Your task to perform on an android device: Add "acer nitro" to the cart on bestbuy, then select checkout. Image 0: 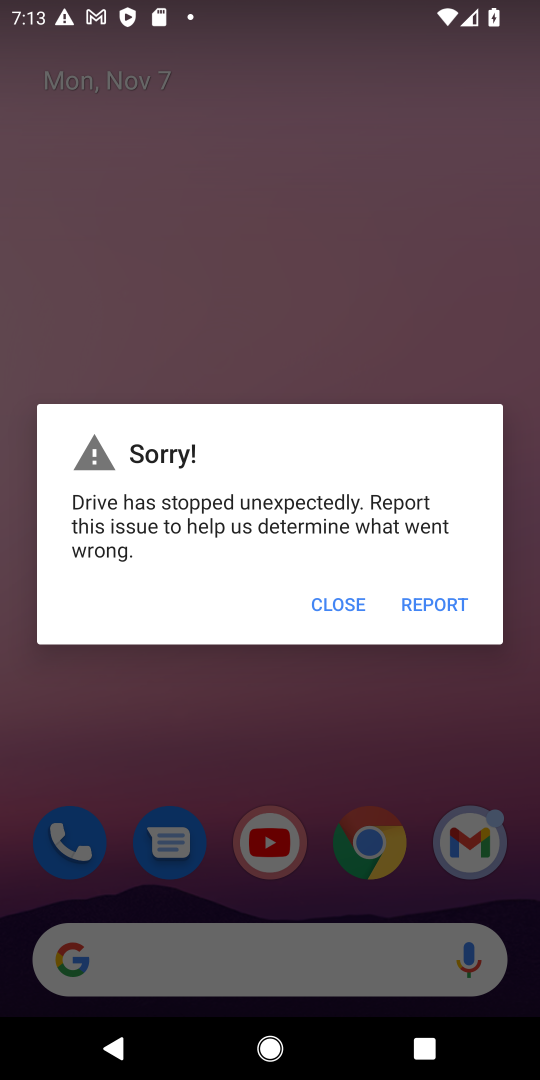
Step 0: click (329, 608)
Your task to perform on an android device: Add "acer nitro" to the cart on bestbuy, then select checkout. Image 1: 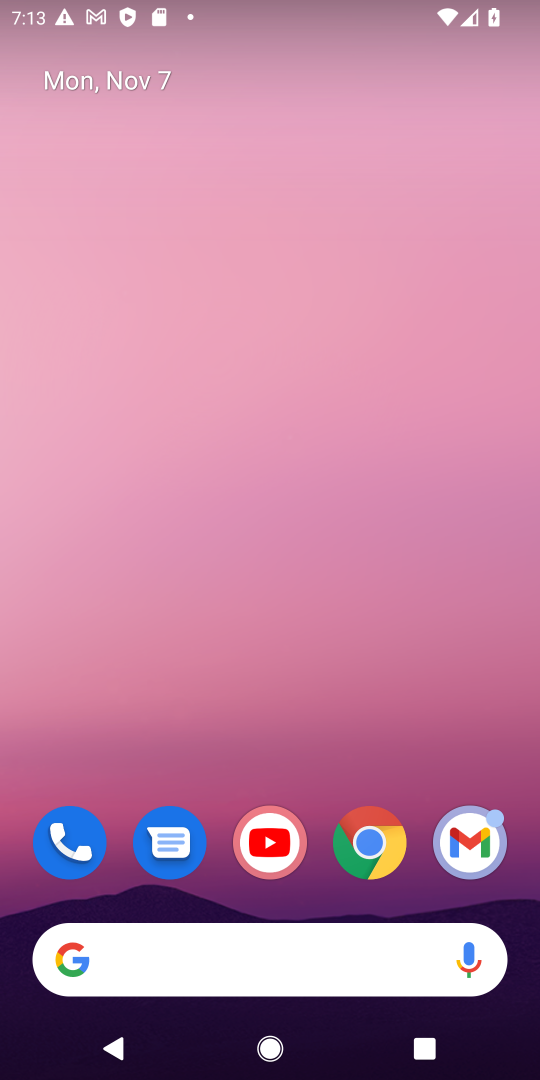
Step 1: drag from (309, 916) to (266, 65)
Your task to perform on an android device: Add "acer nitro" to the cart on bestbuy, then select checkout. Image 2: 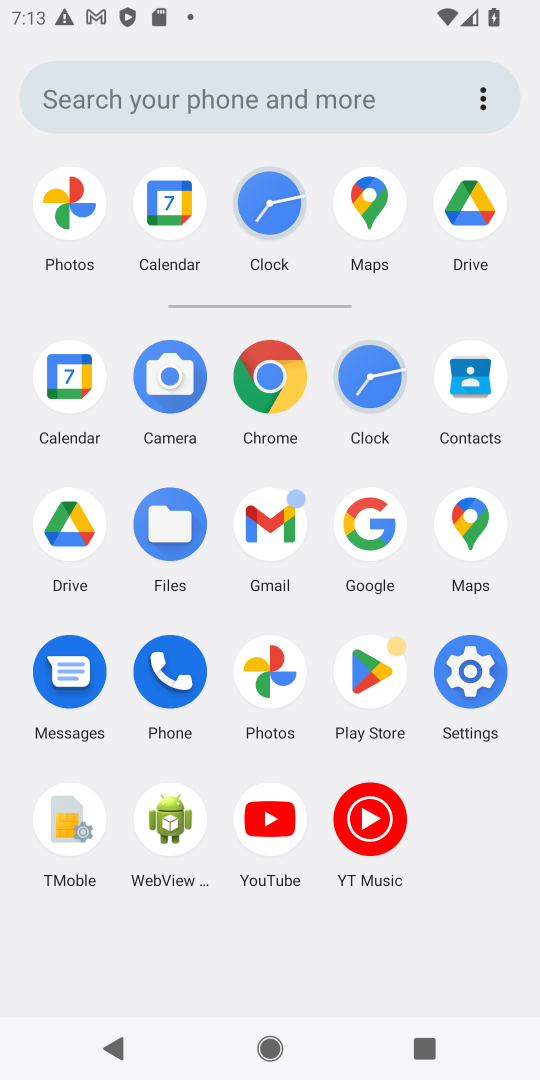
Step 2: click (274, 382)
Your task to perform on an android device: Add "acer nitro" to the cart on bestbuy, then select checkout. Image 3: 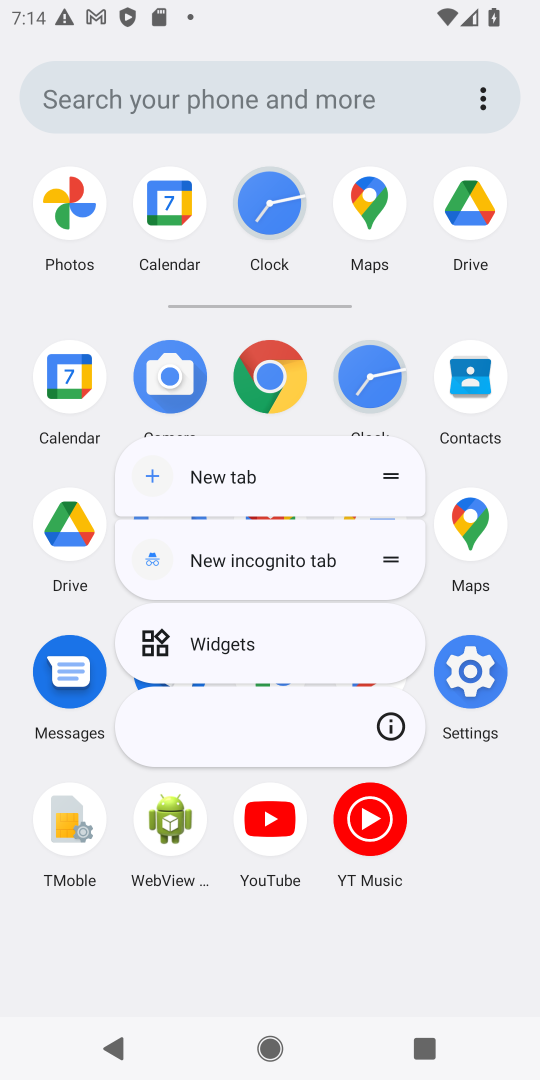
Step 3: click (276, 377)
Your task to perform on an android device: Add "acer nitro" to the cart on bestbuy, then select checkout. Image 4: 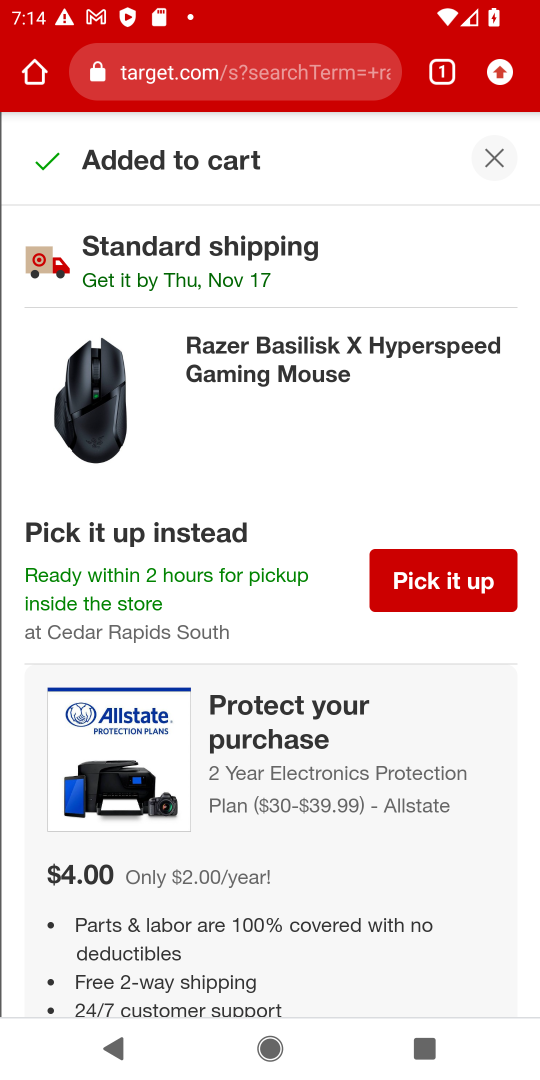
Step 4: click (239, 82)
Your task to perform on an android device: Add "acer nitro" to the cart on bestbuy, then select checkout. Image 5: 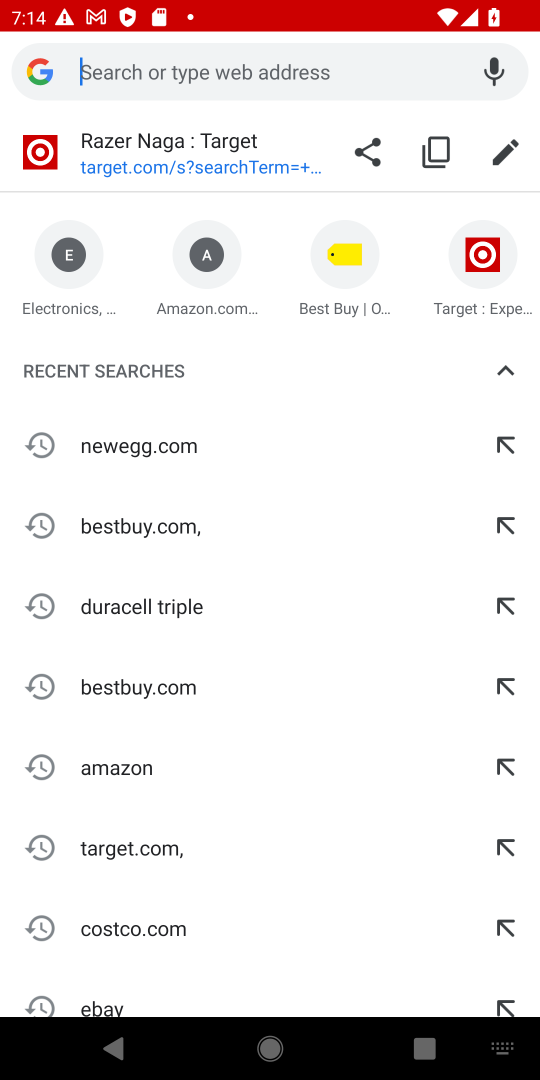
Step 5: type "bestbuy"
Your task to perform on an android device: Add "acer nitro" to the cart on bestbuy, then select checkout. Image 6: 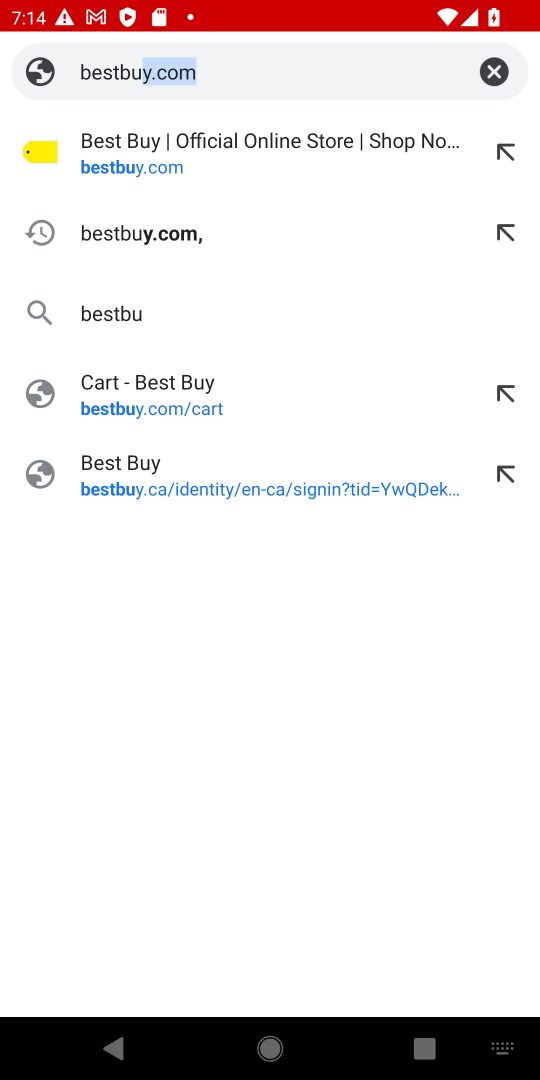
Step 6: press enter
Your task to perform on an android device: Add "acer nitro" to the cart on bestbuy, then select checkout. Image 7: 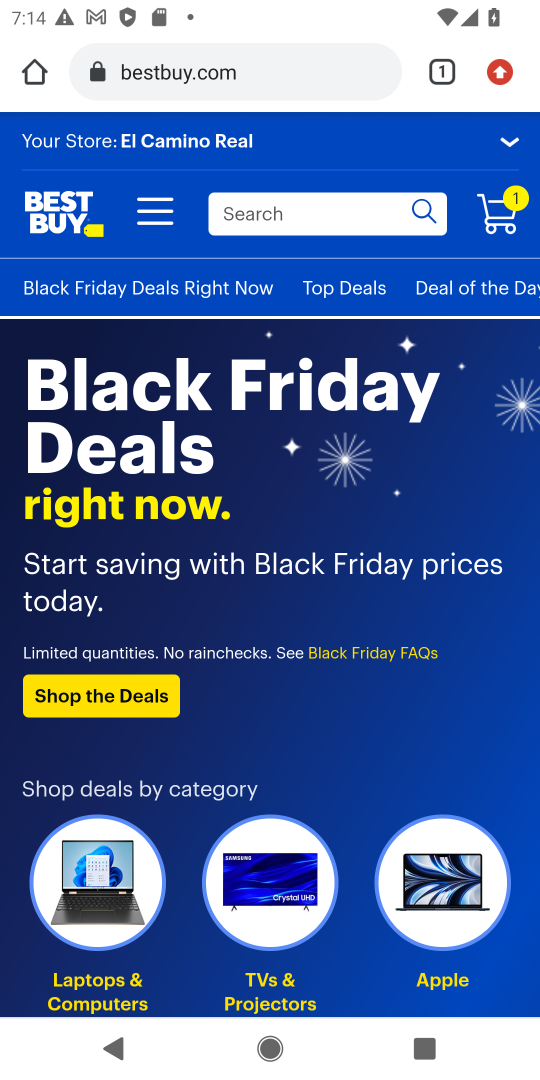
Step 7: click (314, 206)
Your task to perform on an android device: Add "acer nitro" to the cart on bestbuy, then select checkout. Image 8: 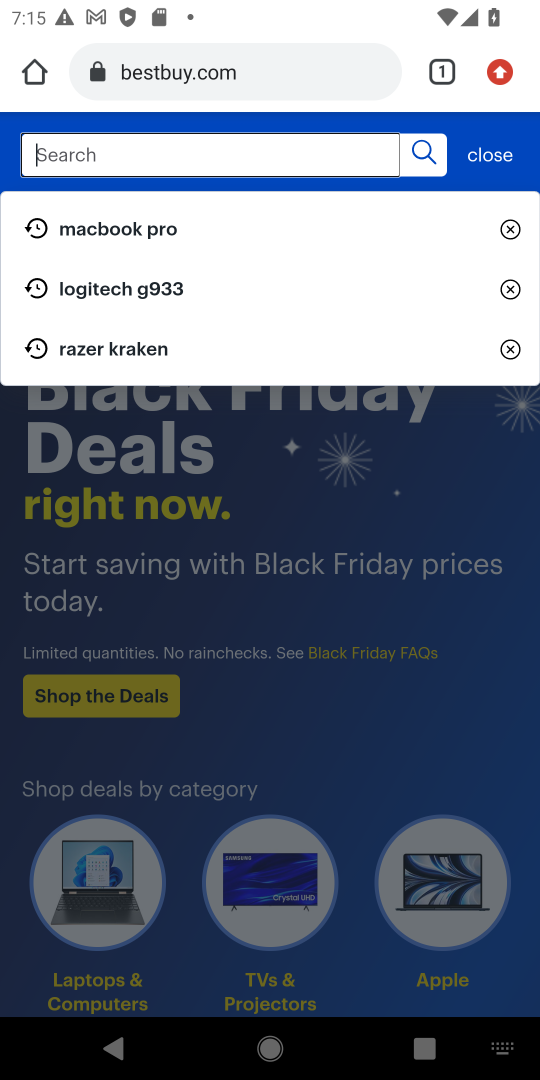
Step 8: press enter
Your task to perform on an android device: Add "acer nitro" to the cart on bestbuy, then select checkout. Image 9: 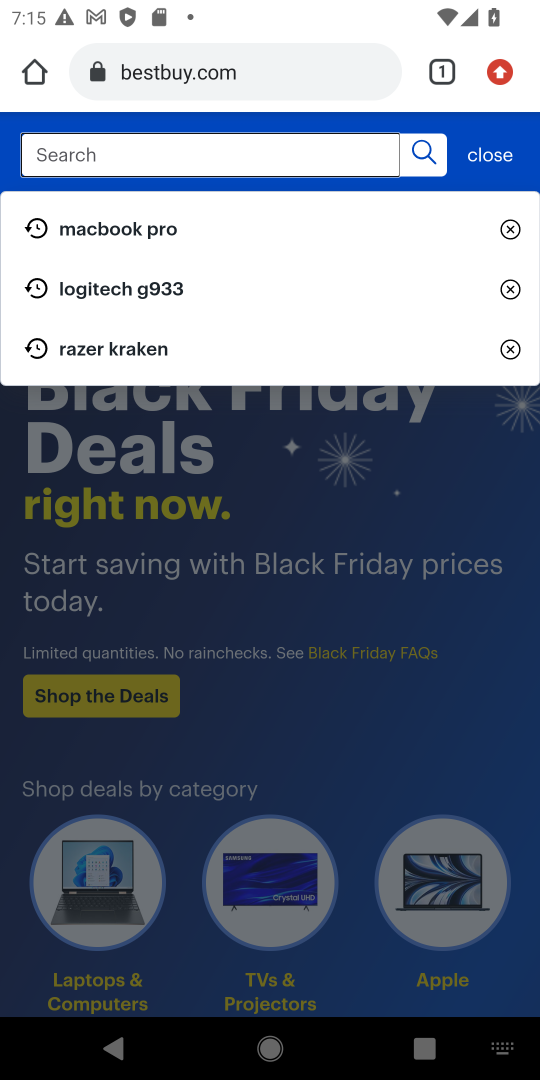
Step 9: type "acer nitro"
Your task to perform on an android device: Add "acer nitro" to the cart on bestbuy, then select checkout. Image 10: 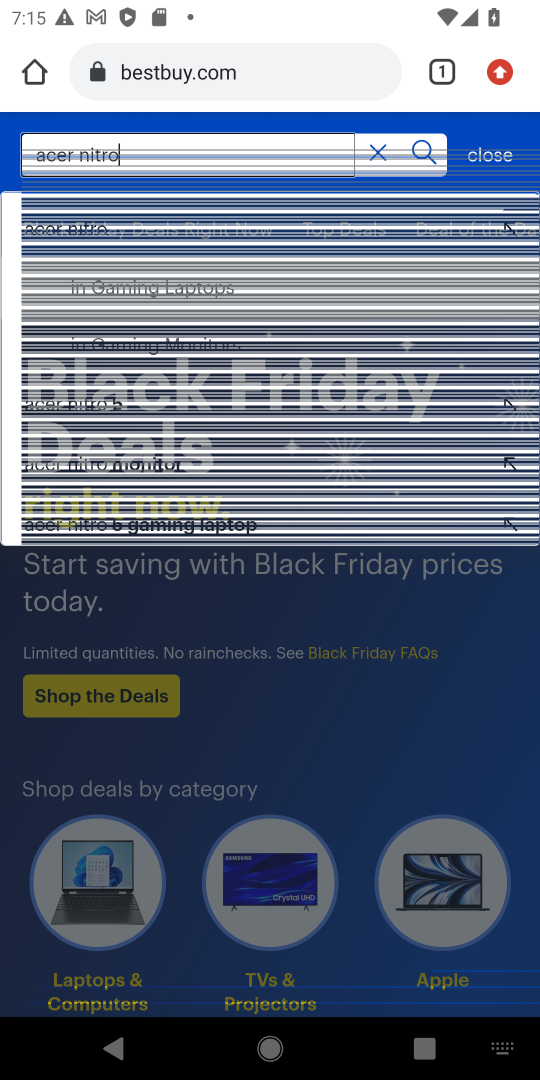
Step 10: press enter
Your task to perform on an android device: Add "acer nitro" to the cart on bestbuy, then select checkout. Image 11: 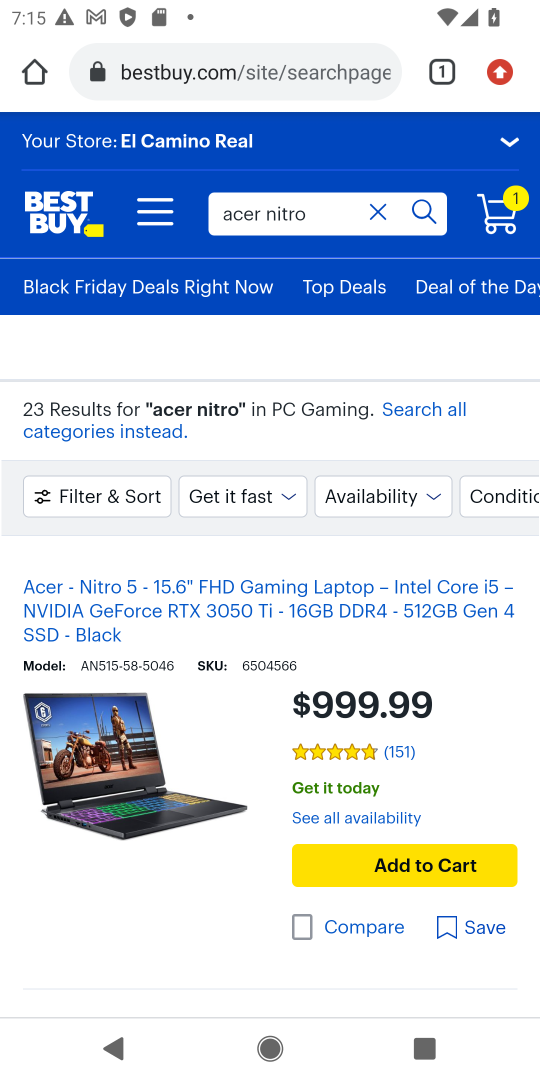
Step 11: click (399, 872)
Your task to perform on an android device: Add "acer nitro" to the cart on bestbuy, then select checkout. Image 12: 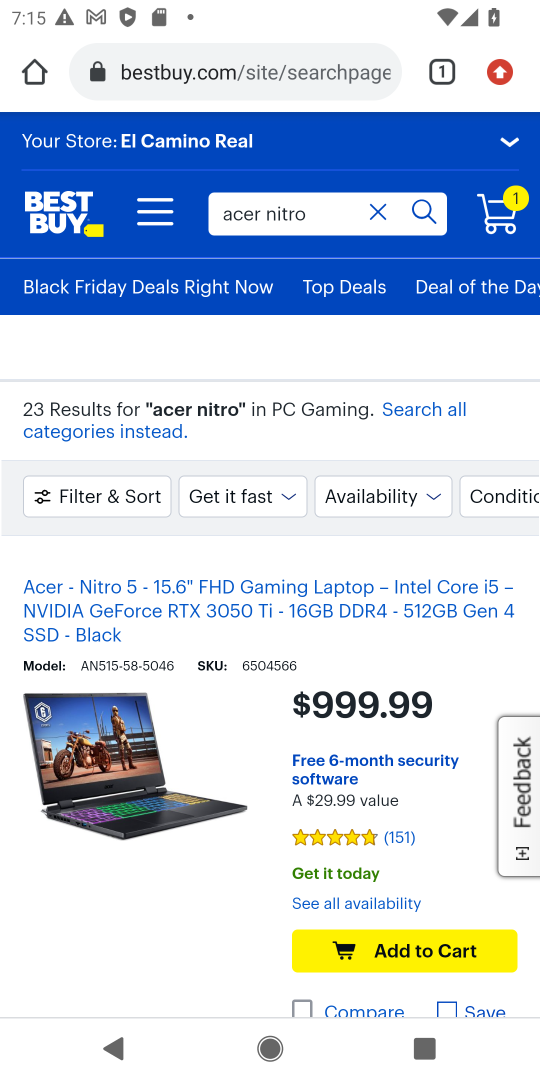
Step 12: click (431, 945)
Your task to perform on an android device: Add "acer nitro" to the cart on bestbuy, then select checkout. Image 13: 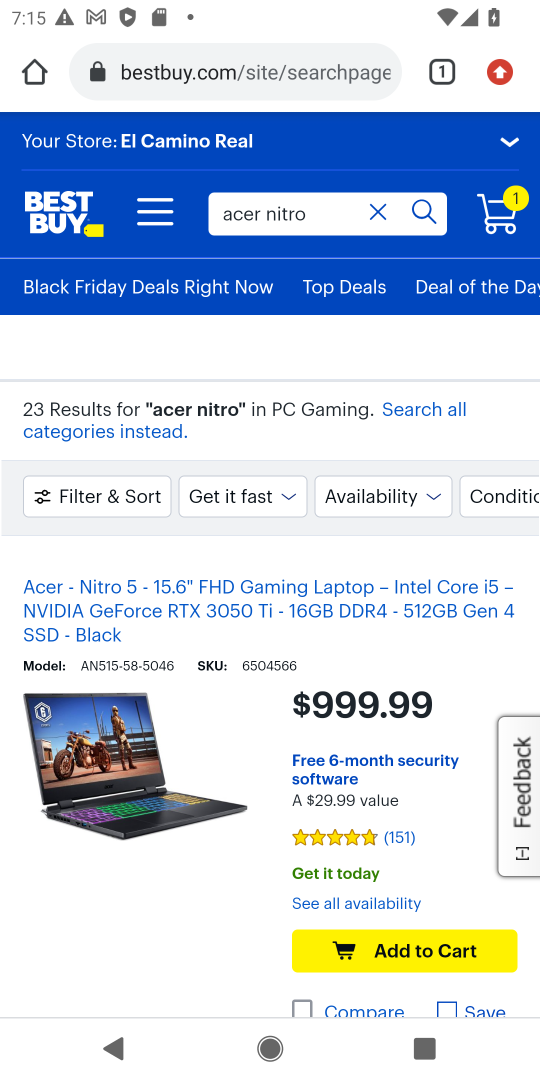
Step 13: click (380, 945)
Your task to perform on an android device: Add "acer nitro" to the cart on bestbuy, then select checkout. Image 14: 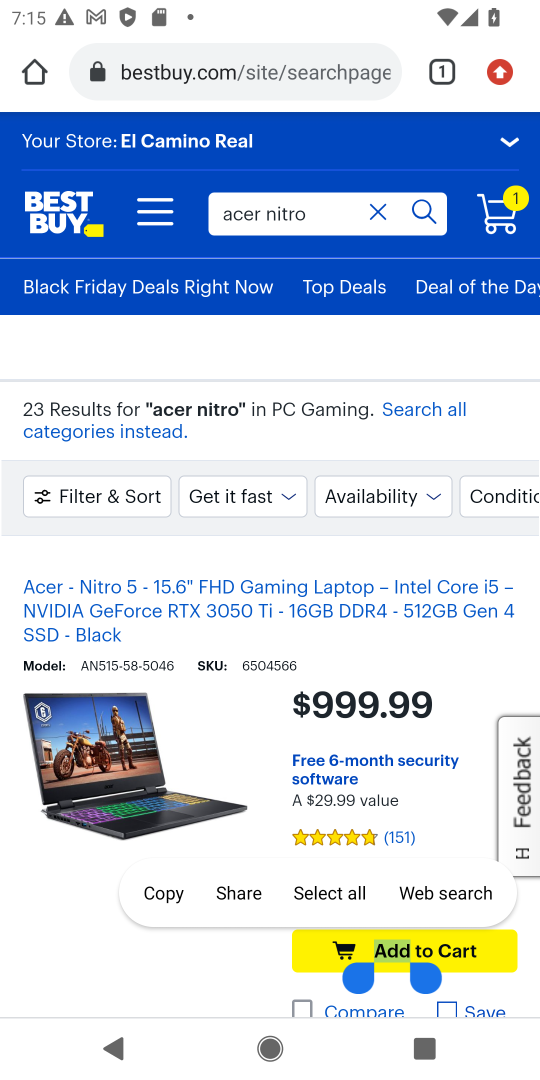
Step 14: click (185, 997)
Your task to perform on an android device: Add "acer nitro" to the cart on bestbuy, then select checkout. Image 15: 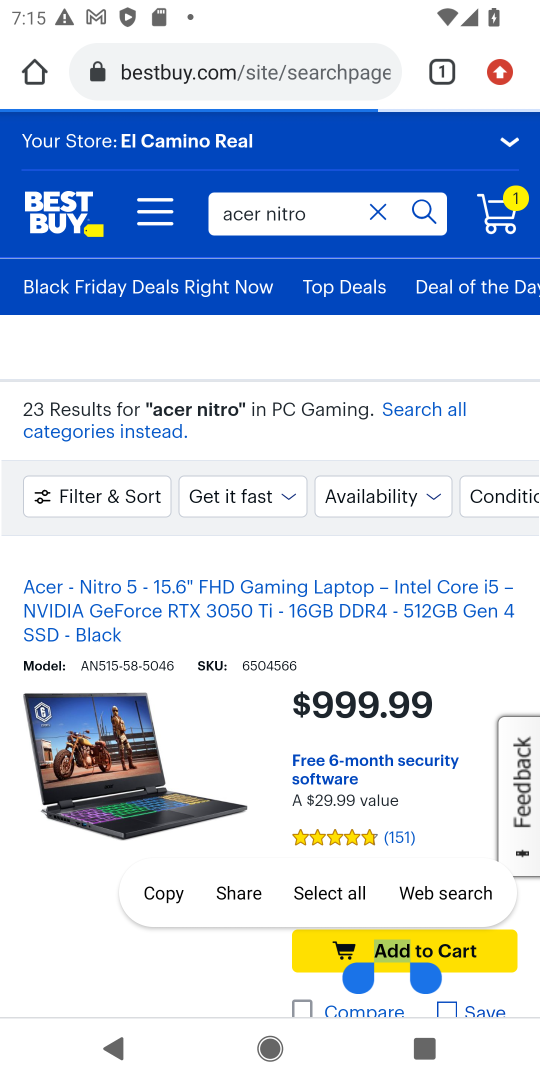
Step 15: click (530, 965)
Your task to perform on an android device: Add "acer nitro" to the cart on bestbuy, then select checkout. Image 16: 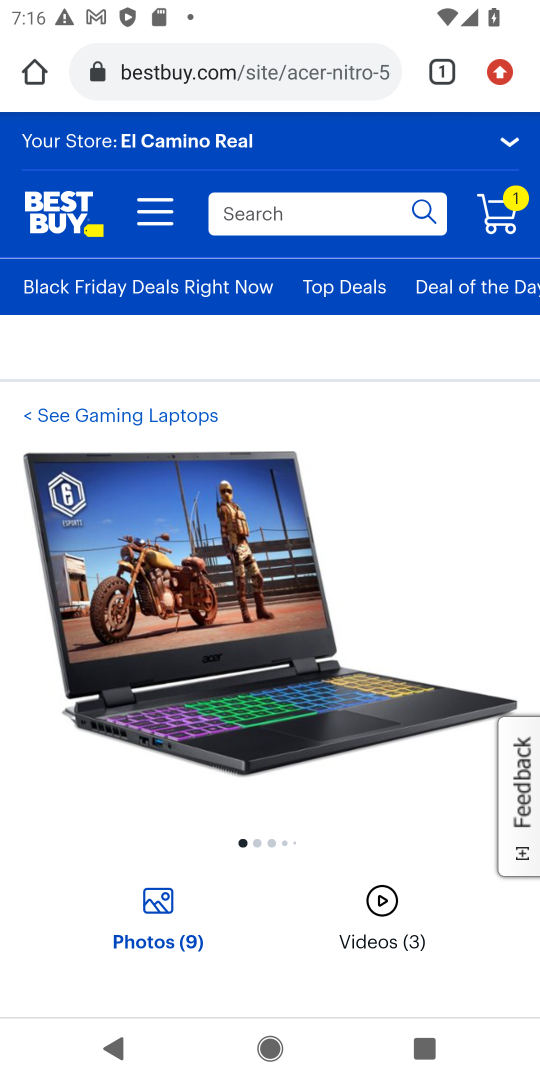
Step 16: drag from (365, 832) to (379, 427)
Your task to perform on an android device: Add "acer nitro" to the cart on bestbuy, then select checkout. Image 17: 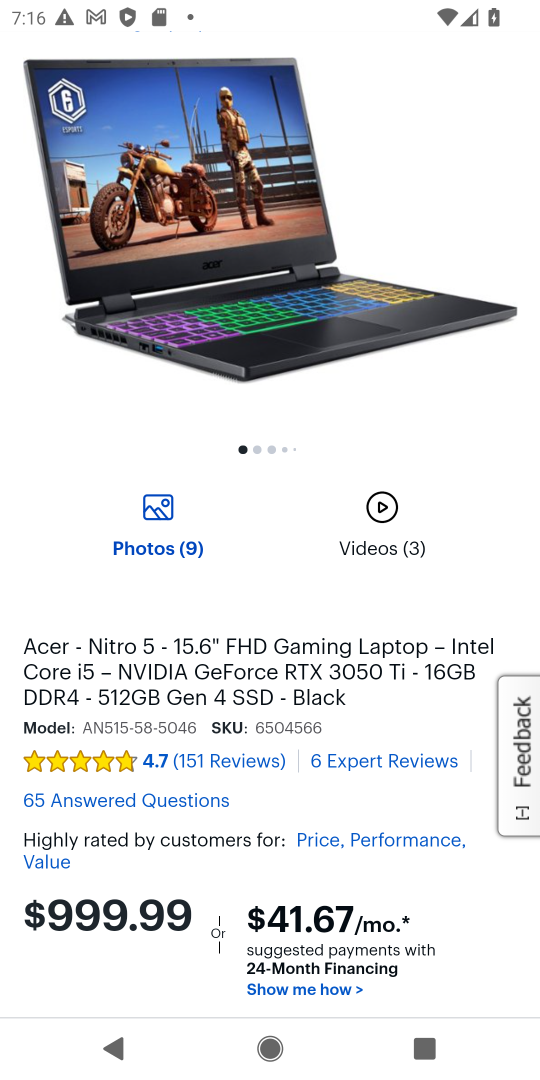
Step 17: drag from (287, 745) to (296, 370)
Your task to perform on an android device: Add "acer nitro" to the cart on bestbuy, then select checkout. Image 18: 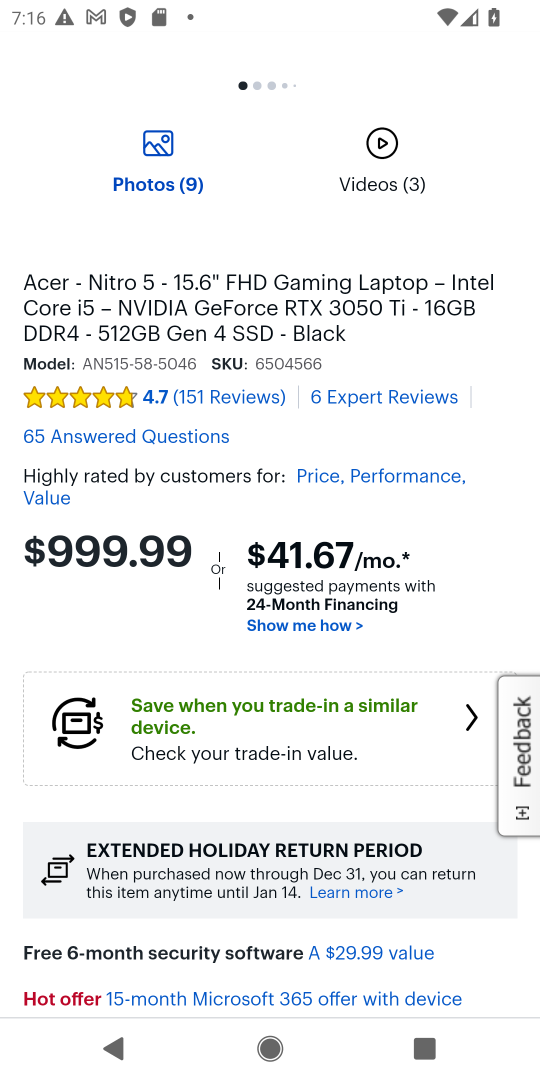
Step 18: drag from (312, 828) to (402, 257)
Your task to perform on an android device: Add "acer nitro" to the cart on bestbuy, then select checkout. Image 19: 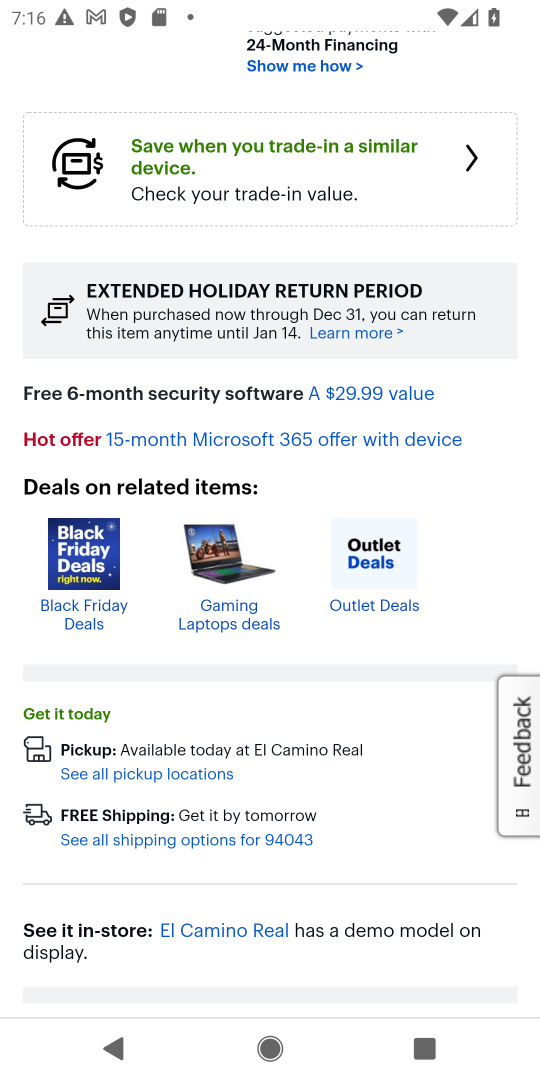
Step 19: drag from (378, 457) to (429, 769)
Your task to perform on an android device: Add "acer nitro" to the cart on bestbuy, then select checkout. Image 20: 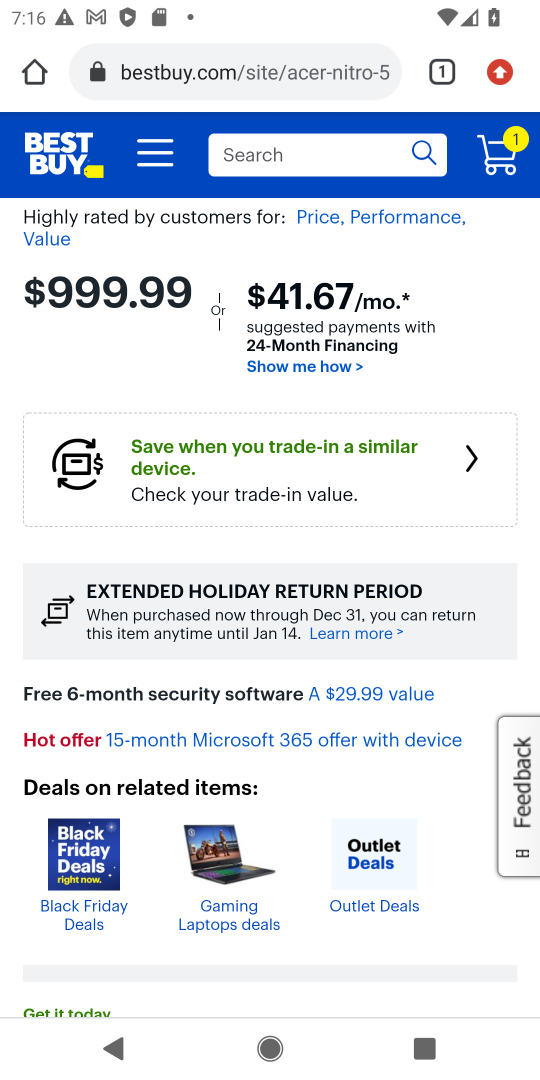
Step 20: drag from (258, 985) to (170, 375)
Your task to perform on an android device: Add "acer nitro" to the cart on bestbuy, then select checkout. Image 21: 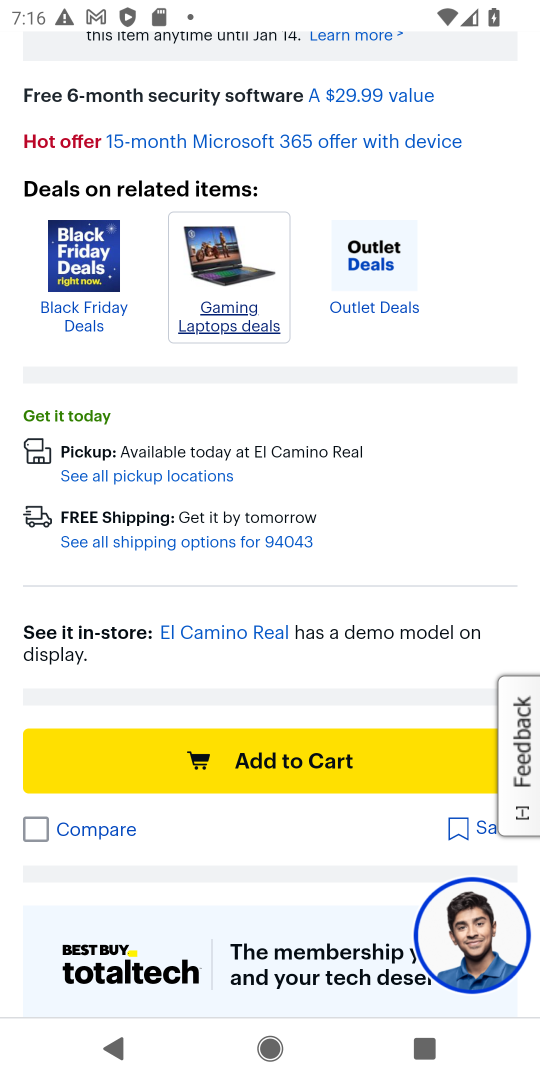
Step 21: click (256, 772)
Your task to perform on an android device: Add "acer nitro" to the cart on bestbuy, then select checkout. Image 22: 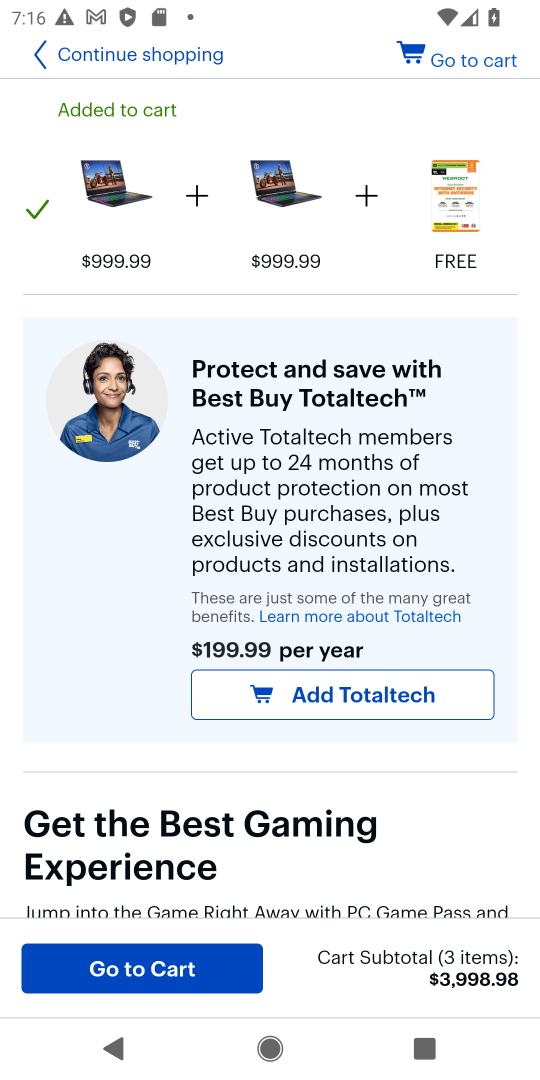
Step 22: drag from (389, 643) to (389, 280)
Your task to perform on an android device: Add "acer nitro" to the cart on bestbuy, then select checkout. Image 23: 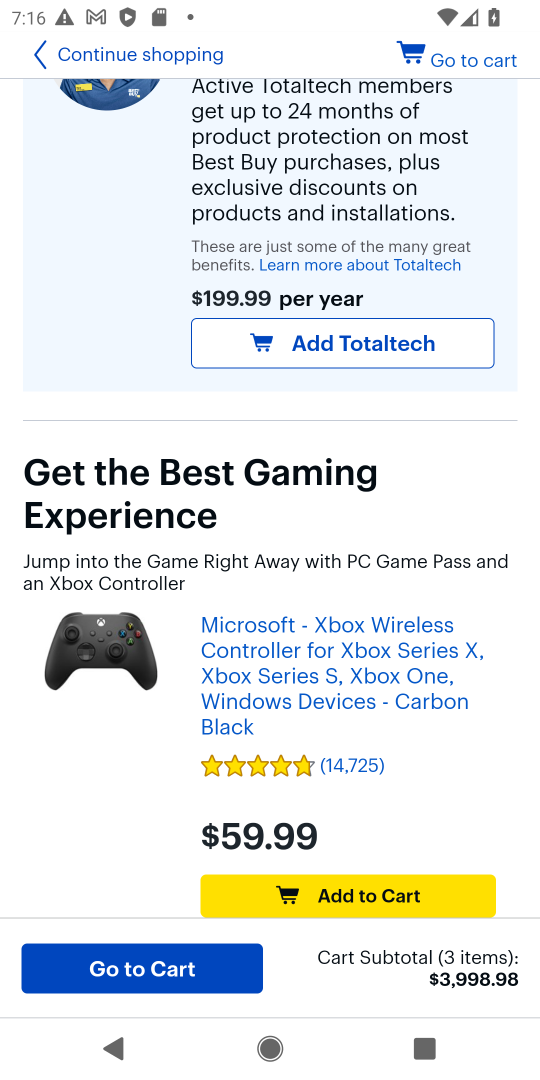
Step 23: drag from (458, 748) to (372, 316)
Your task to perform on an android device: Add "acer nitro" to the cart on bestbuy, then select checkout. Image 24: 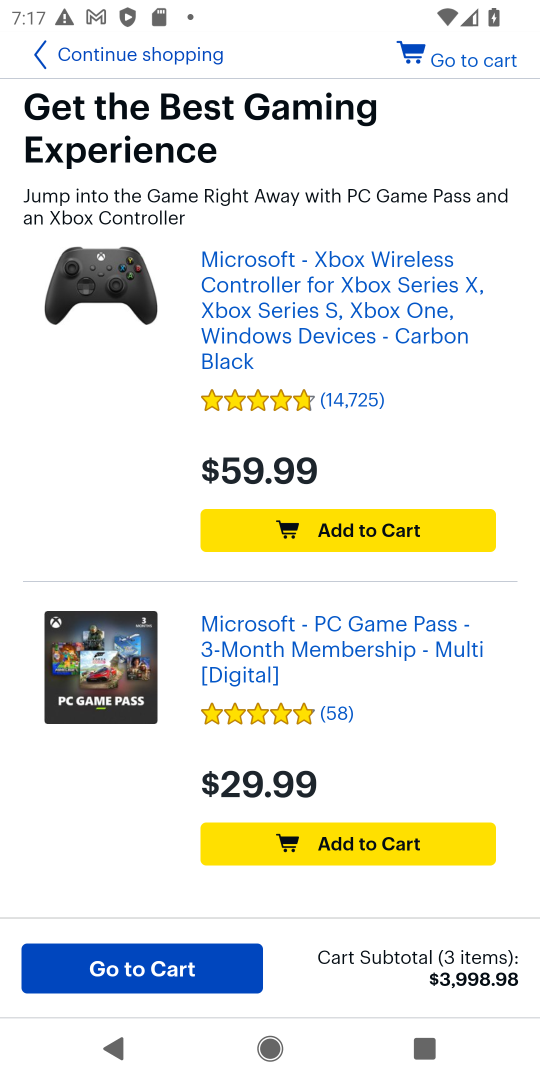
Step 24: click (184, 949)
Your task to perform on an android device: Add "acer nitro" to the cart on bestbuy, then select checkout. Image 25: 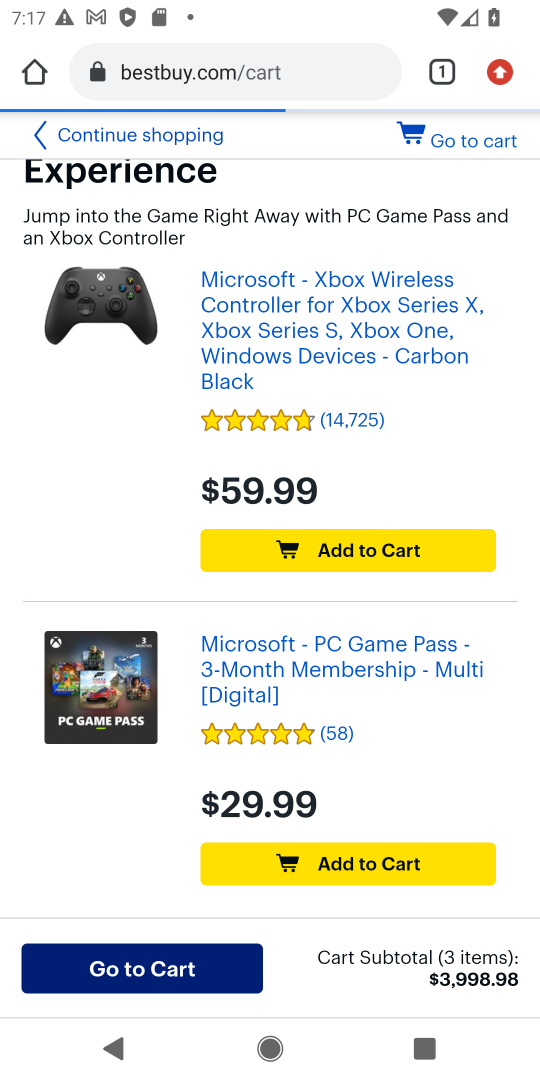
Step 25: click (185, 976)
Your task to perform on an android device: Add "acer nitro" to the cart on bestbuy, then select checkout. Image 26: 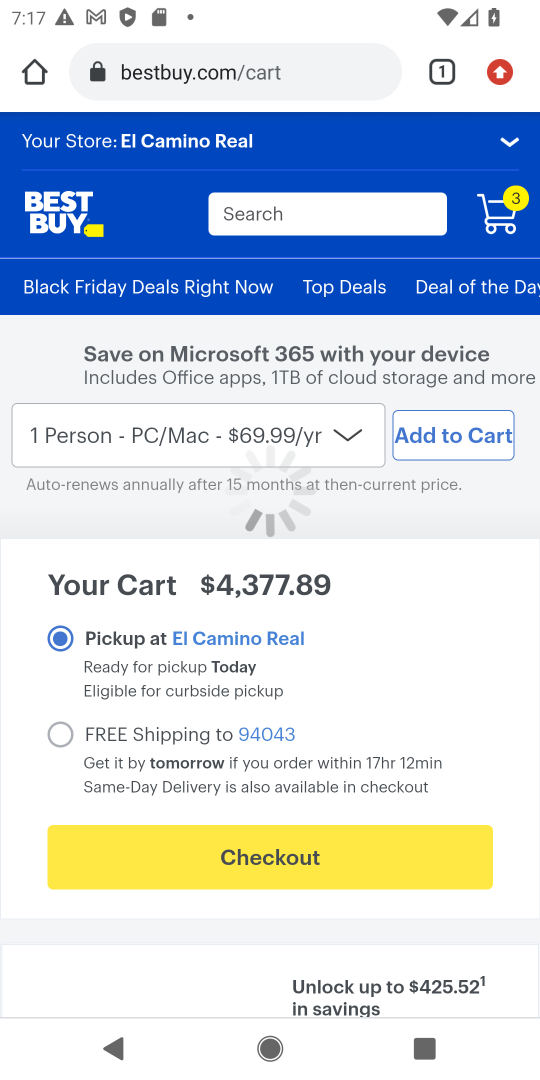
Step 26: click (520, 222)
Your task to perform on an android device: Add "acer nitro" to the cart on bestbuy, then select checkout. Image 27: 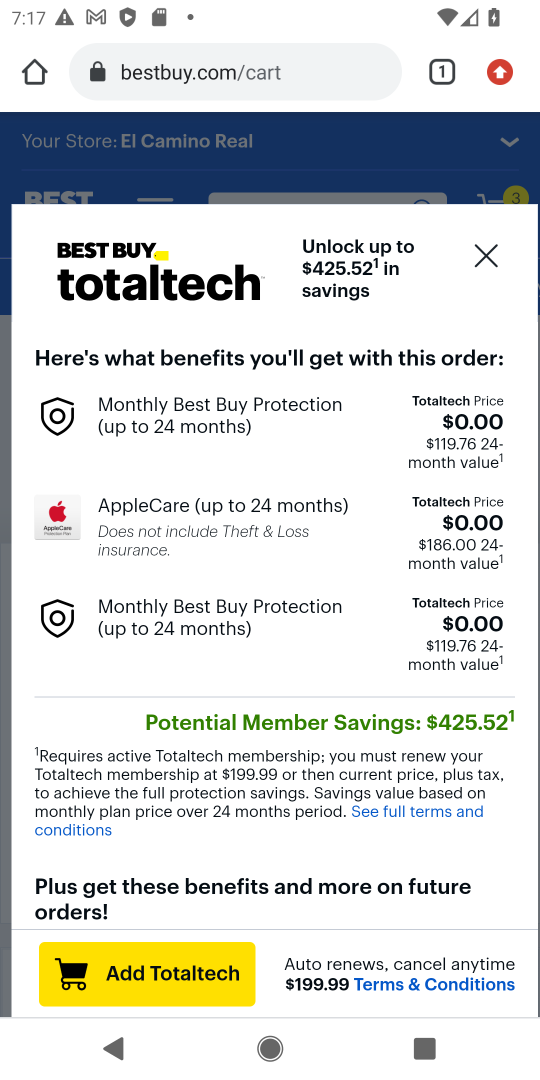
Step 27: click (464, 264)
Your task to perform on an android device: Add "acer nitro" to the cart on bestbuy, then select checkout. Image 28: 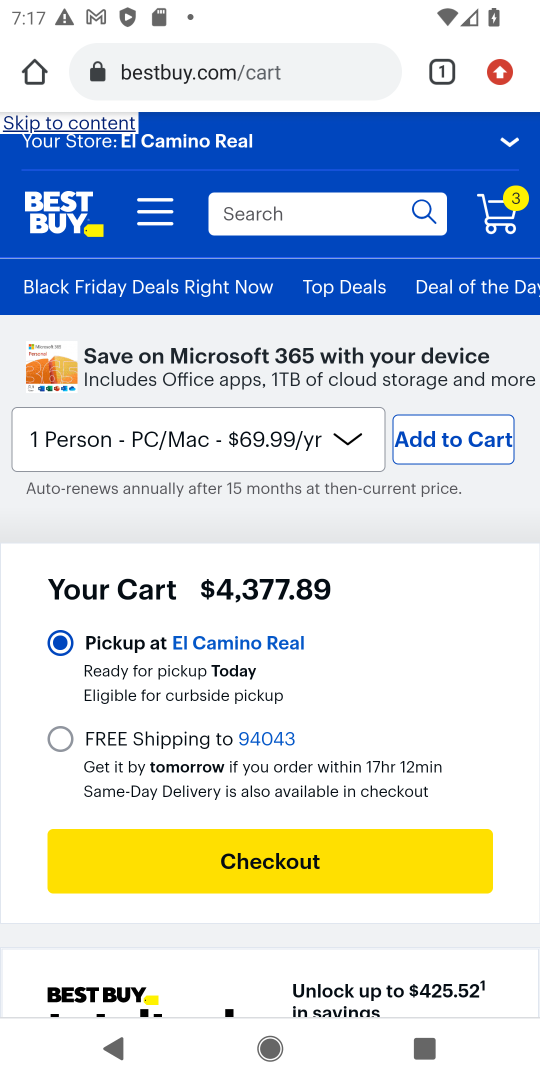
Step 28: click (215, 851)
Your task to perform on an android device: Add "acer nitro" to the cart on bestbuy, then select checkout. Image 29: 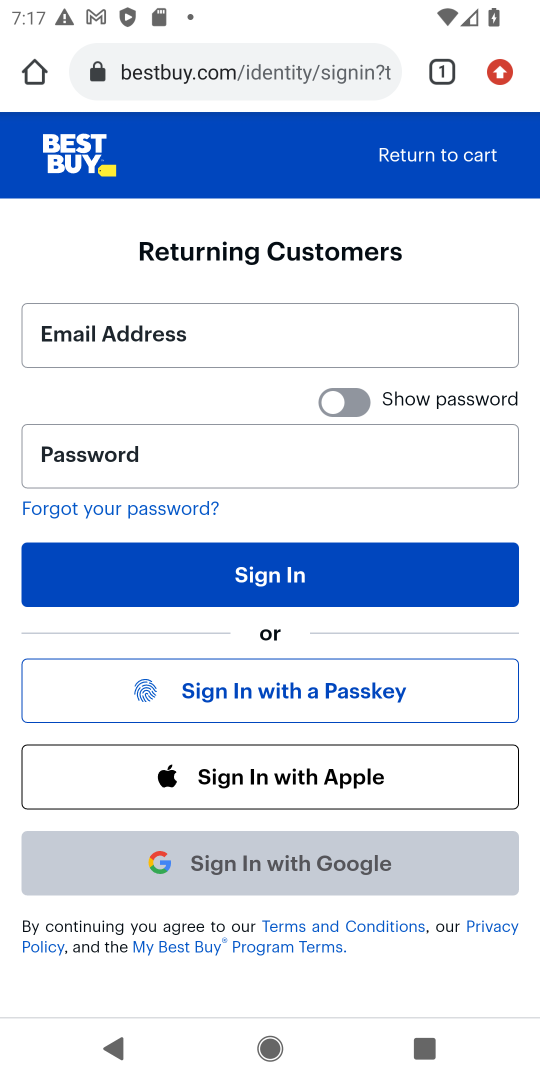
Step 29: task complete